Your task to perform on an android device: toggle translation in the chrome app Image 0: 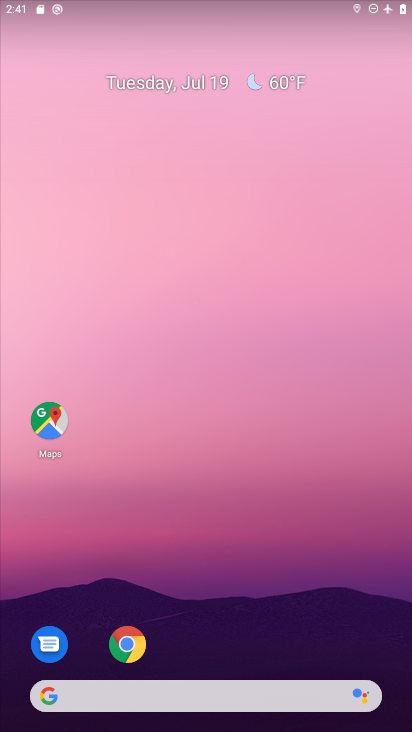
Step 0: click (121, 641)
Your task to perform on an android device: toggle translation in the chrome app Image 1: 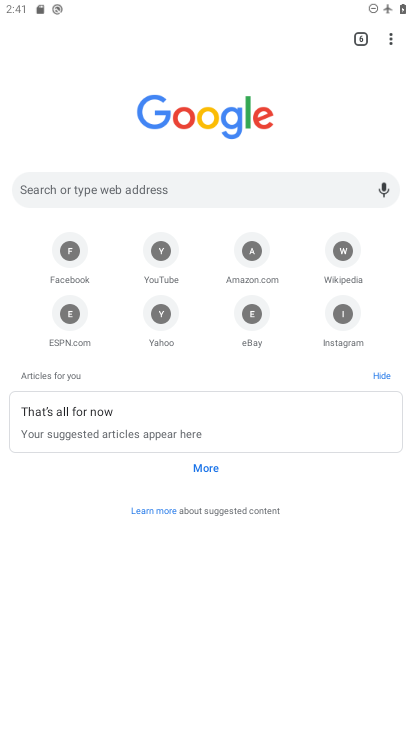
Step 1: drag from (390, 34) to (266, 321)
Your task to perform on an android device: toggle translation in the chrome app Image 2: 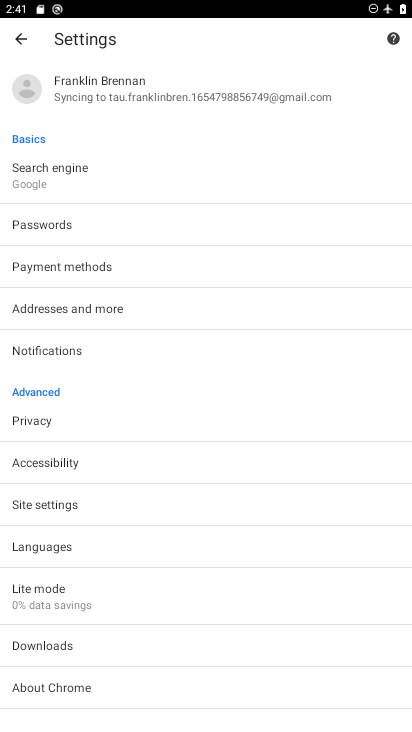
Step 2: click (30, 546)
Your task to perform on an android device: toggle translation in the chrome app Image 3: 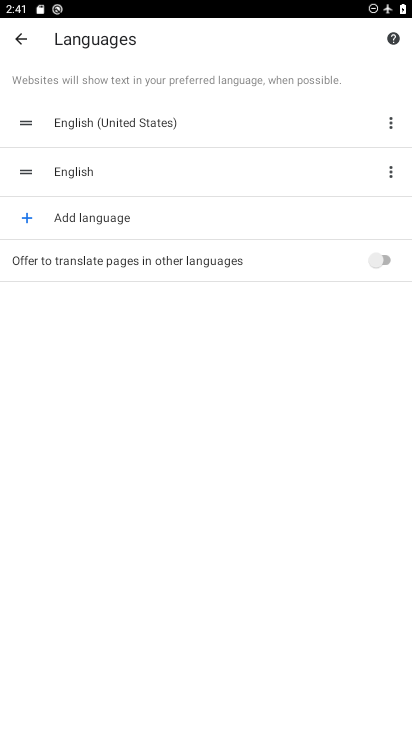
Step 3: click (368, 262)
Your task to perform on an android device: toggle translation in the chrome app Image 4: 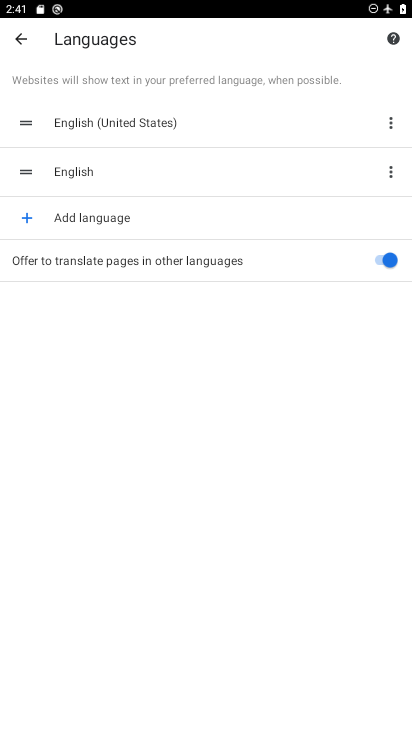
Step 4: task complete